Your task to perform on an android device: turn on translation in the chrome app Image 0: 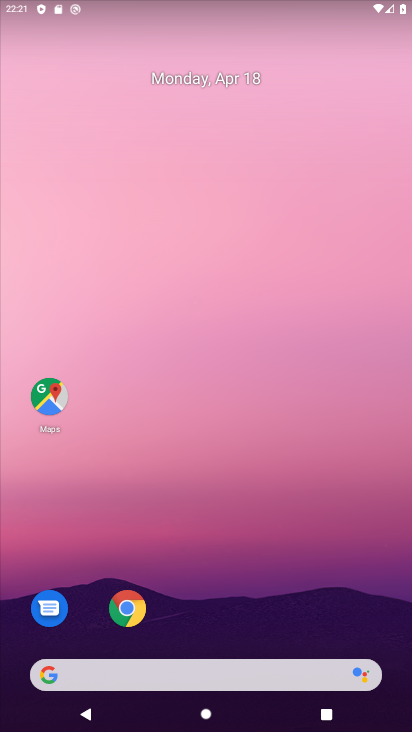
Step 0: click (124, 604)
Your task to perform on an android device: turn on translation in the chrome app Image 1: 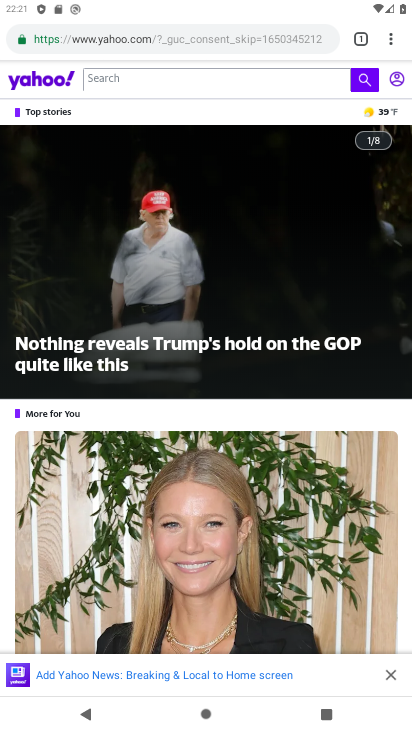
Step 1: click (389, 40)
Your task to perform on an android device: turn on translation in the chrome app Image 2: 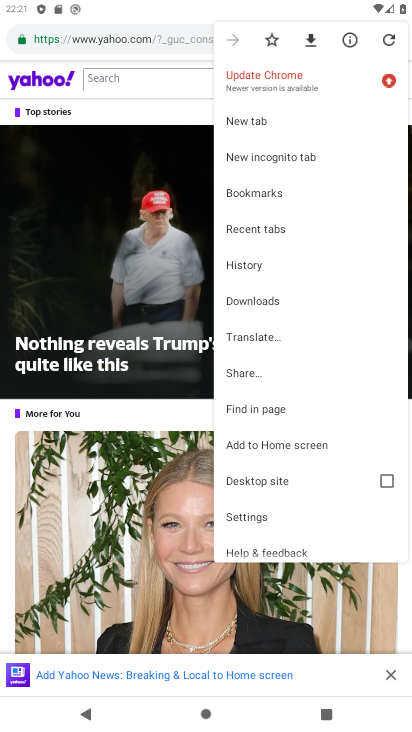
Step 2: click (257, 521)
Your task to perform on an android device: turn on translation in the chrome app Image 3: 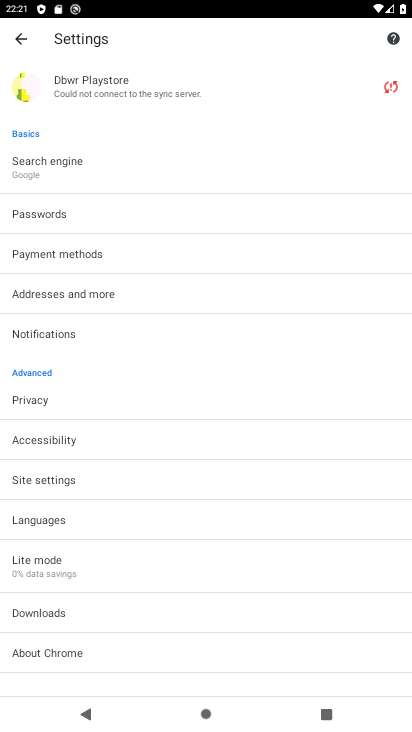
Step 3: click (71, 525)
Your task to perform on an android device: turn on translation in the chrome app Image 4: 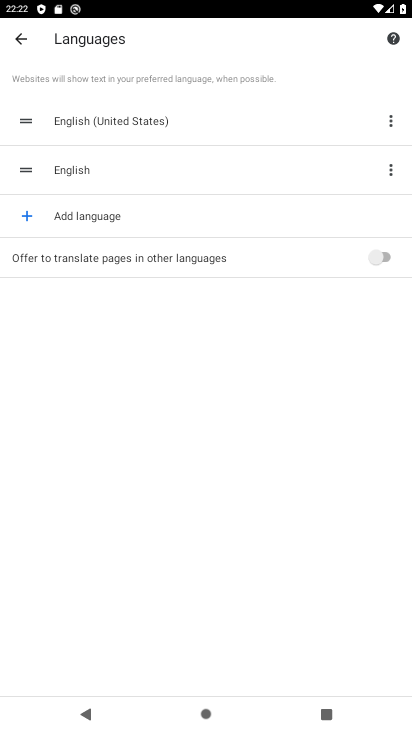
Step 4: click (383, 251)
Your task to perform on an android device: turn on translation in the chrome app Image 5: 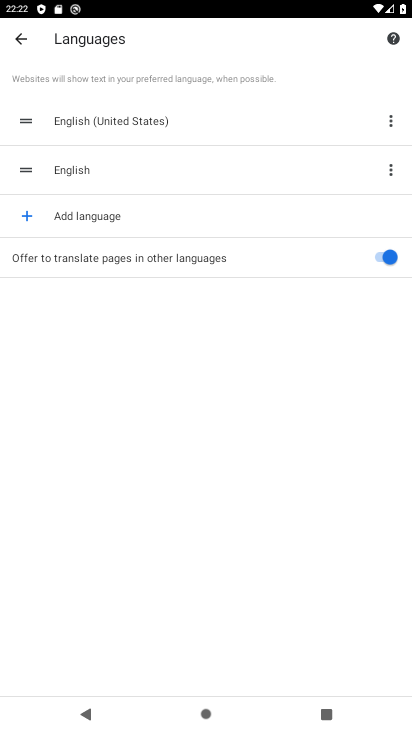
Step 5: task complete